Your task to perform on an android device: set an alarm Image 0: 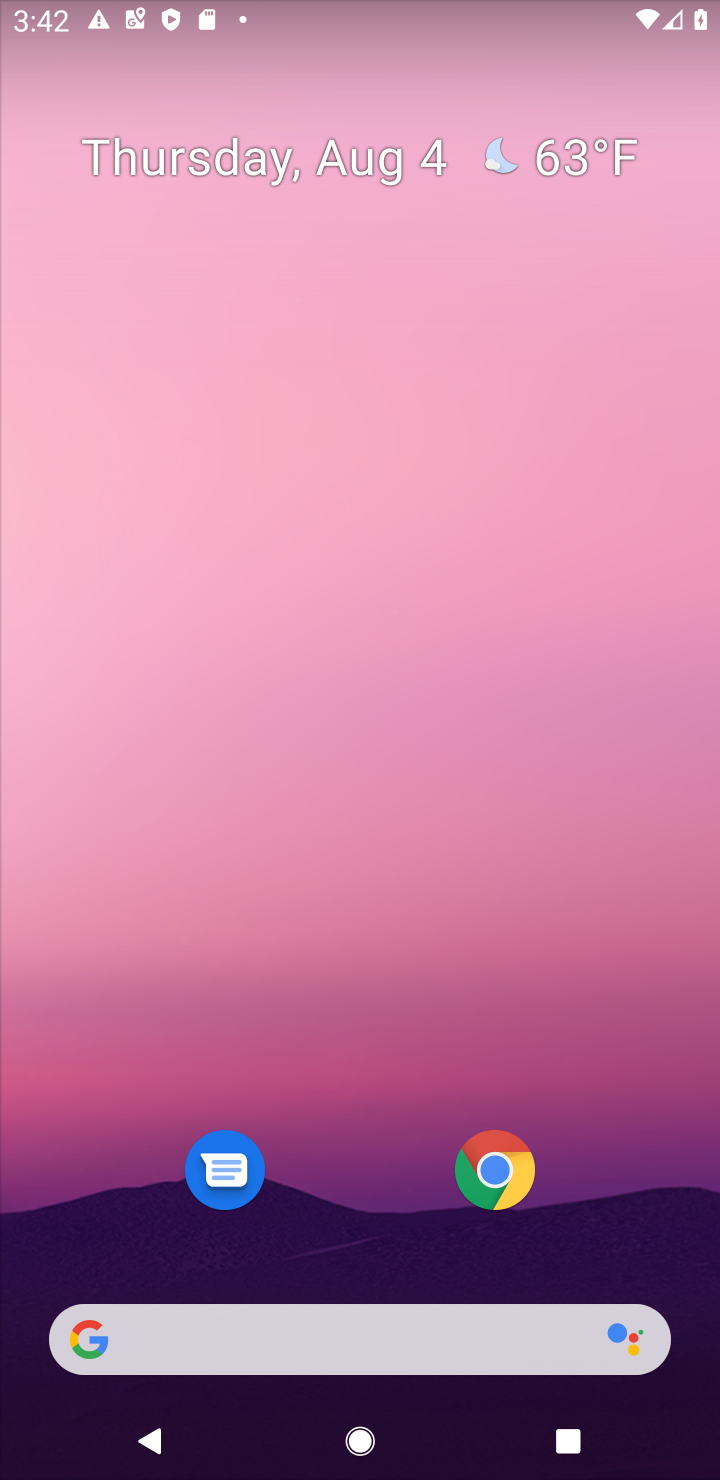
Step 0: drag from (673, 1233) to (588, 361)
Your task to perform on an android device: set an alarm Image 1: 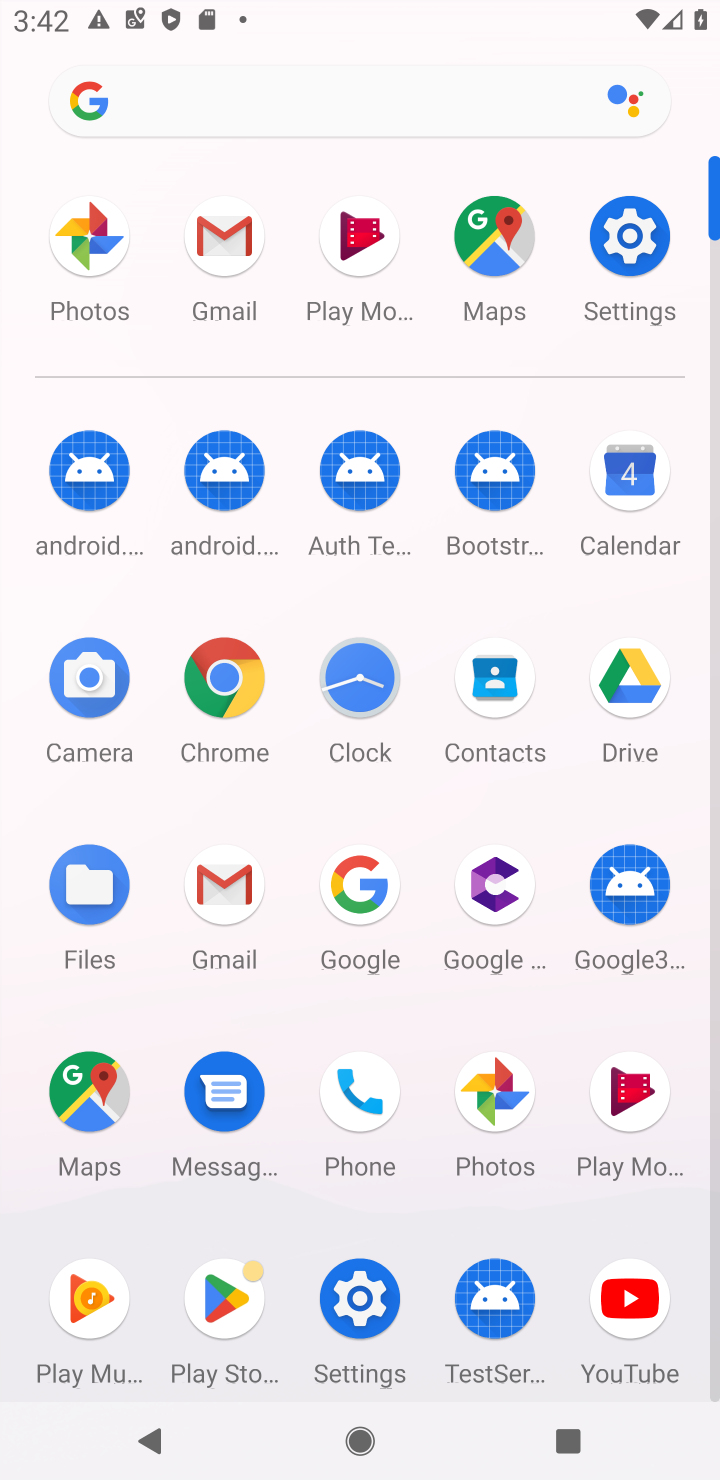
Step 1: click (357, 681)
Your task to perform on an android device: set an alarm Image 2: 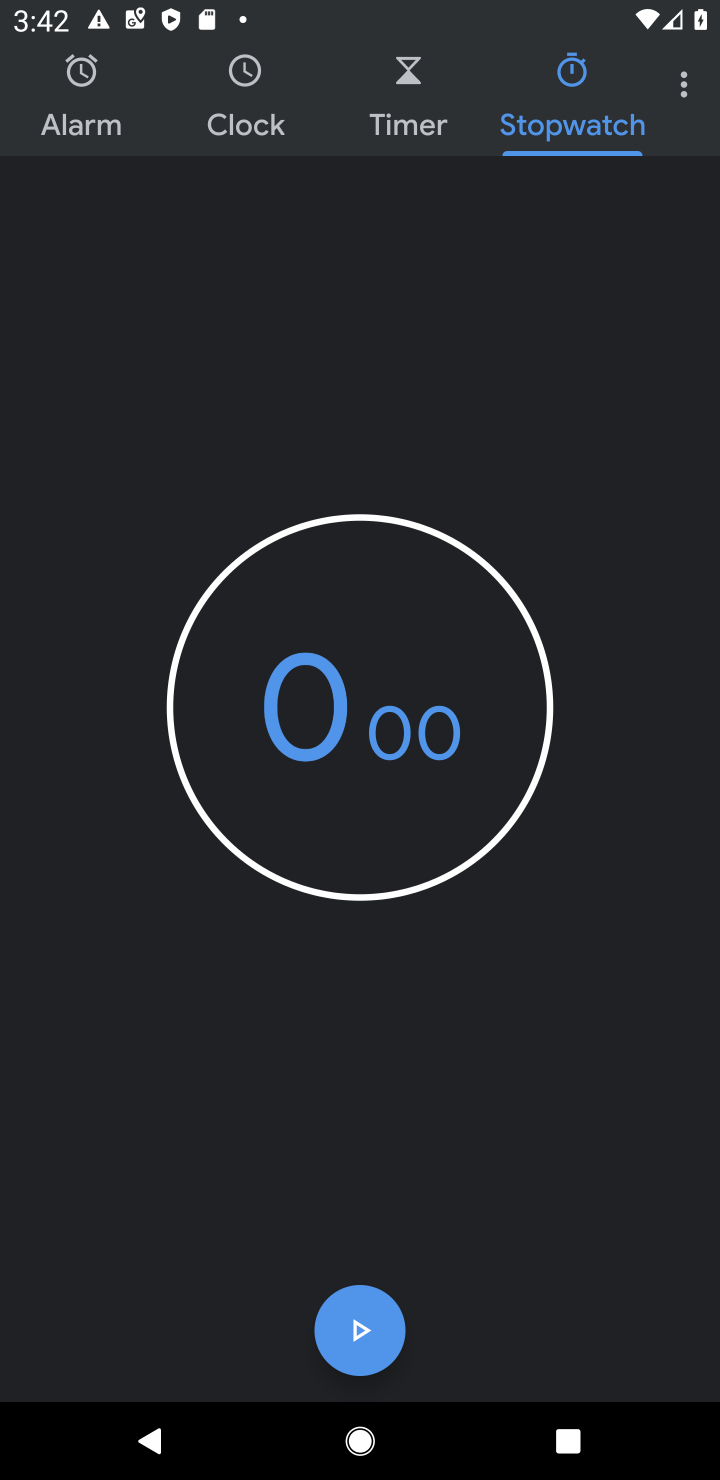
Step 2: click (89, 79)
Your task to perform on an android device: set an alarm Image 3: 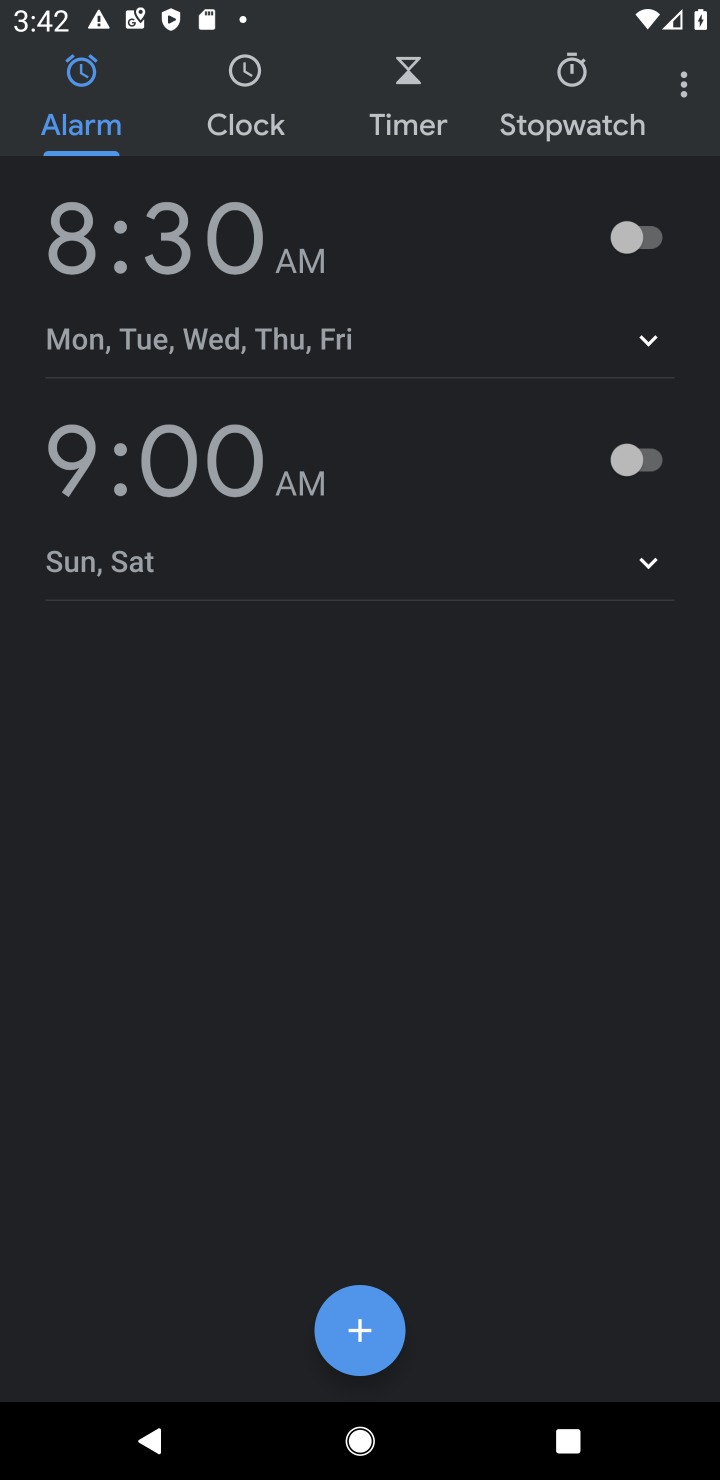
Step 3: click (157, 215)
Your task to perform on an android device: set an alarm Image 4: 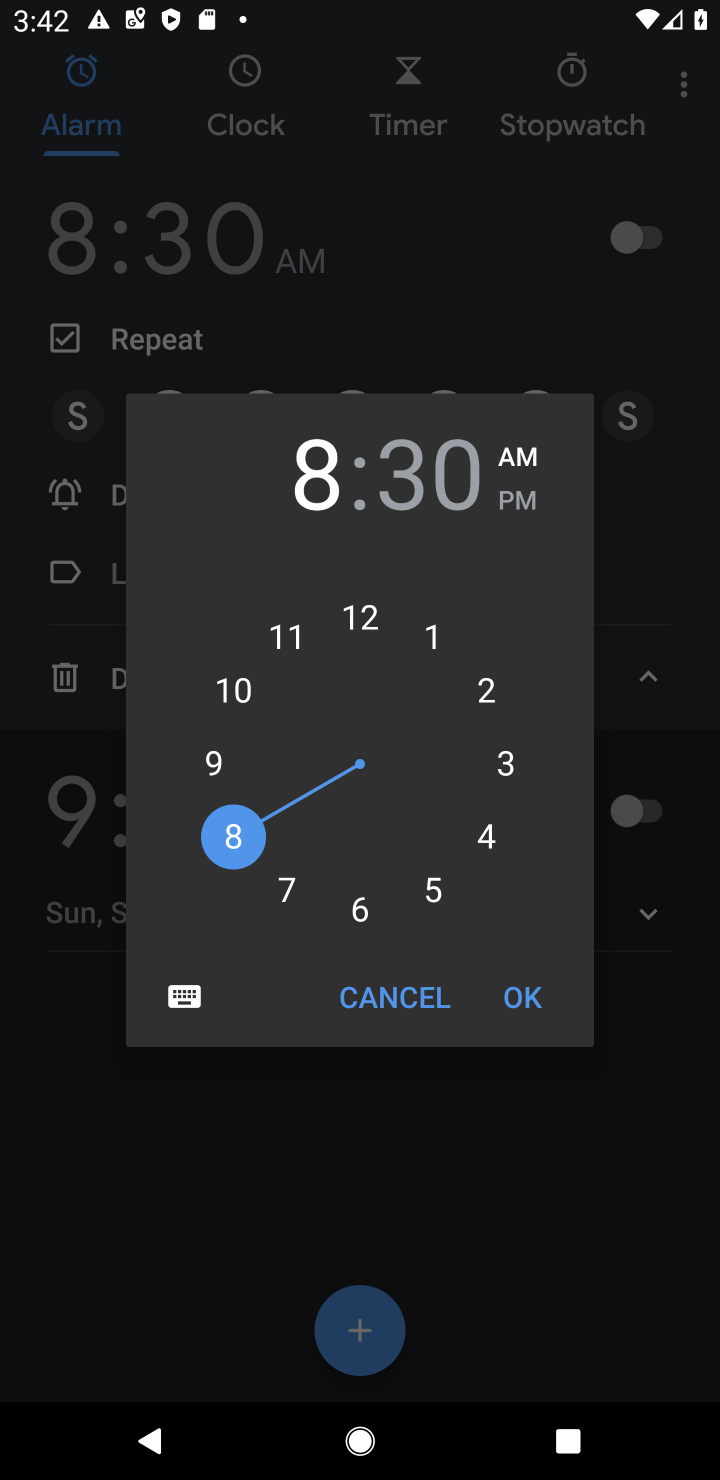
Step 4: click (365, 920)
Your task to perform on an android device: set an alarm Image 5: 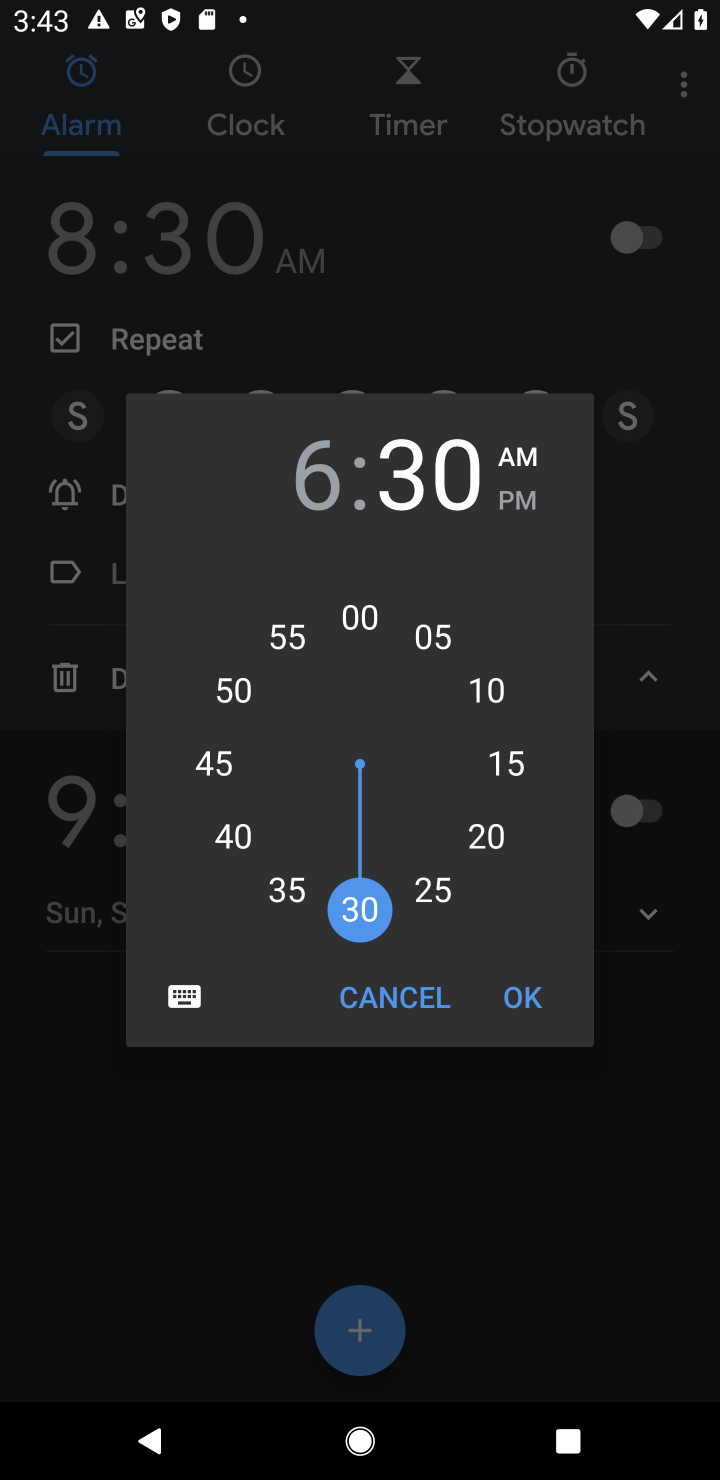
Step 5: click (523, 996)
Your task to perform on an android device: set an alarm Image 6: 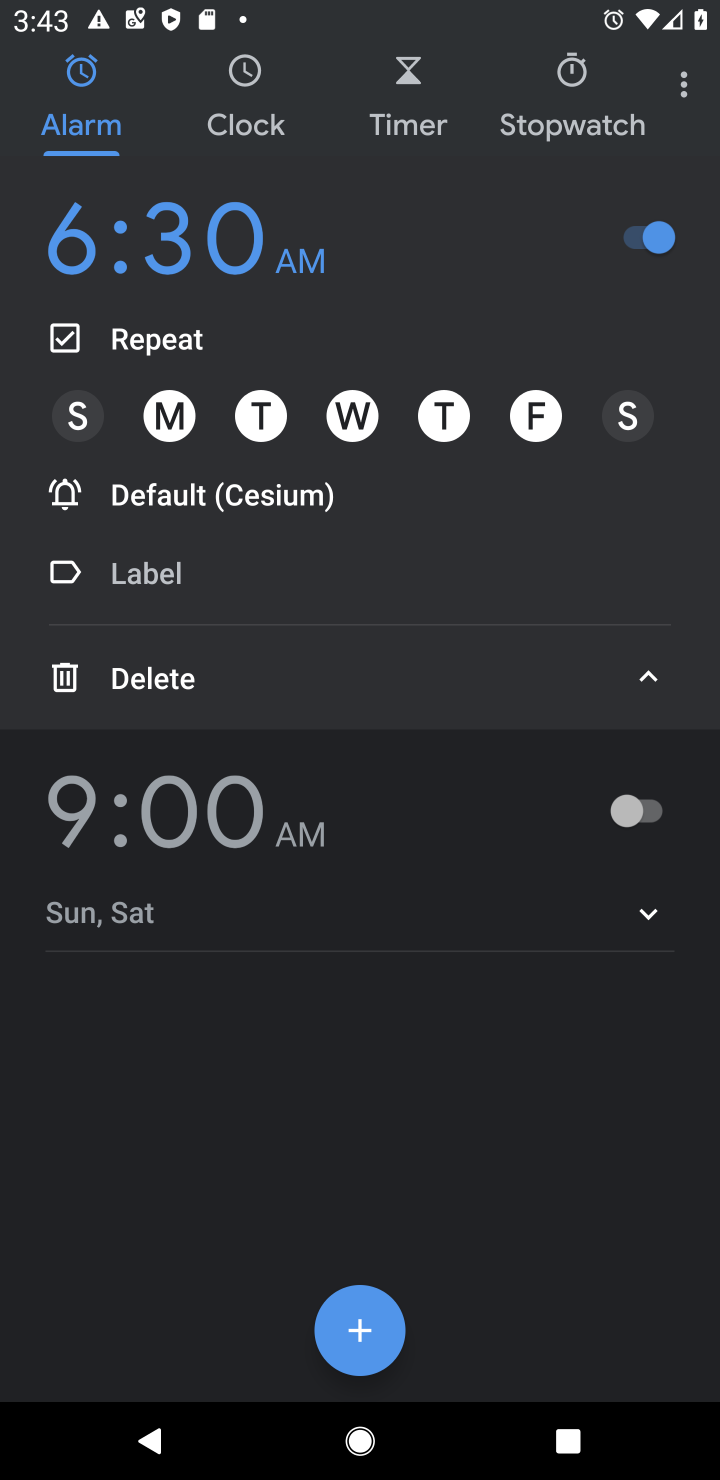
Step 6: click (623, 419)
Your task to perform on an android device: set an alarm Image 7: 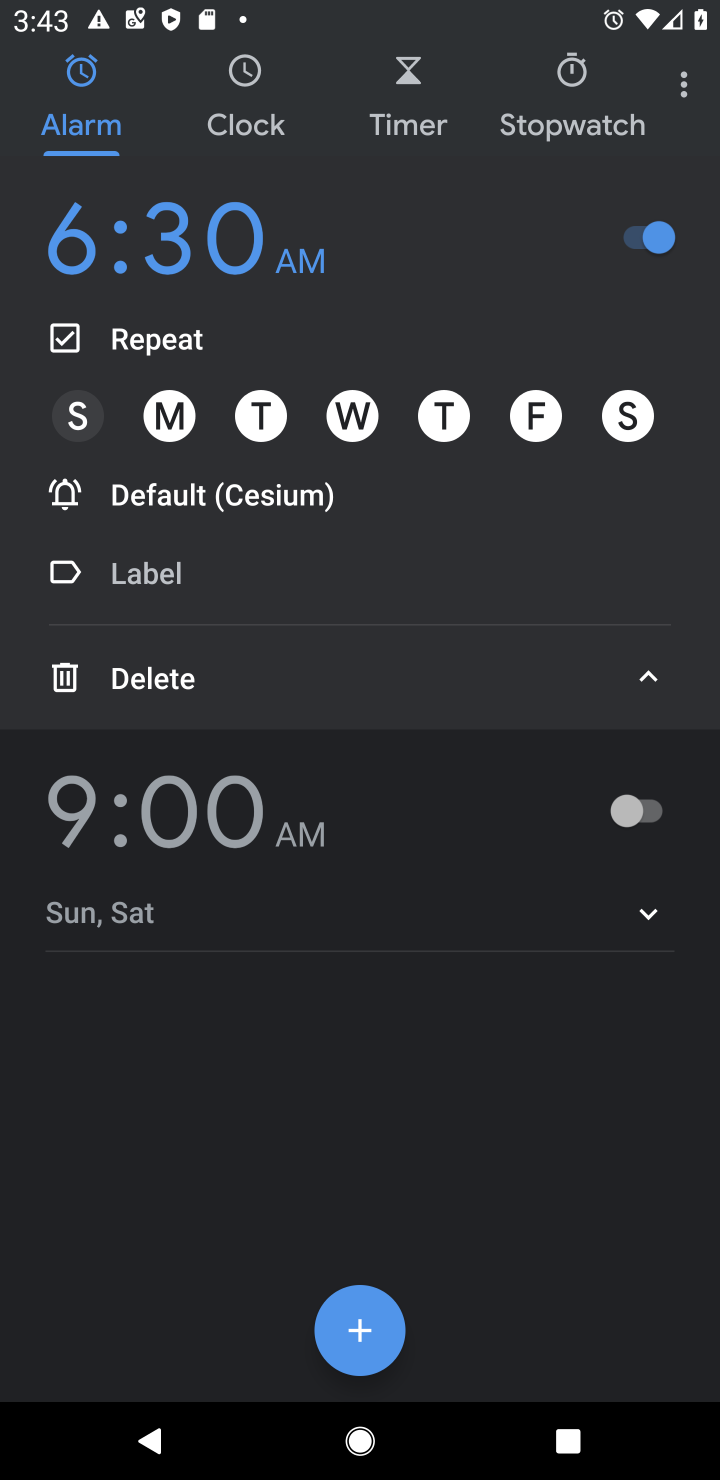
Step 7: click (647, 678)
Your task to perform on an android device: set an alarm Image 8: 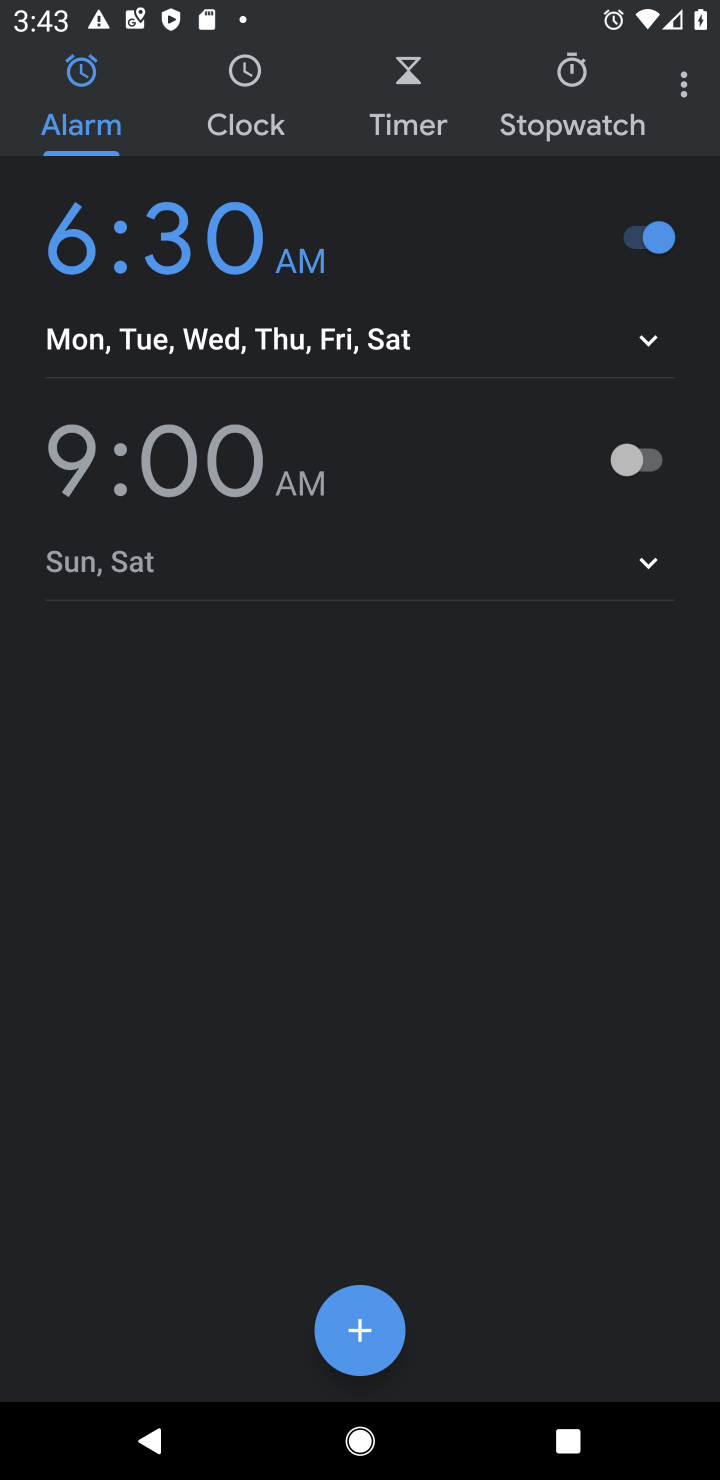
Step 8: task complete